Your task to perform on an android device: Open Google Chrome and open the bookmarks view Image 0: 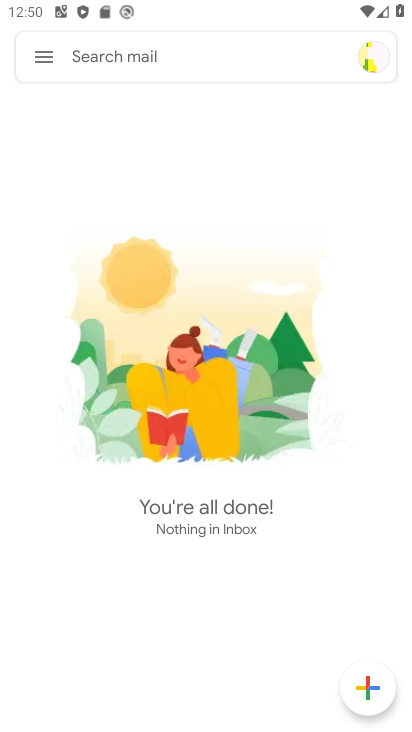
Step 0: press home button
Your task to perform on an android device: Open Google Chrome and open the bookmarks view Image 1: 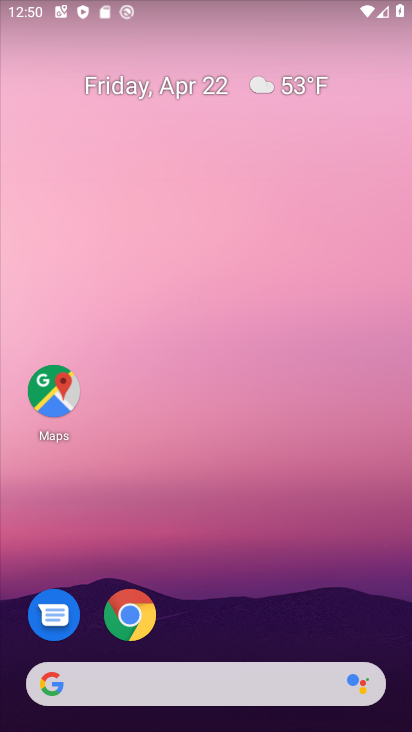
Step 1: click (124, 622)
Your task to perform on an android device: Open Google Chrome and open the bookmarks view Image 2: 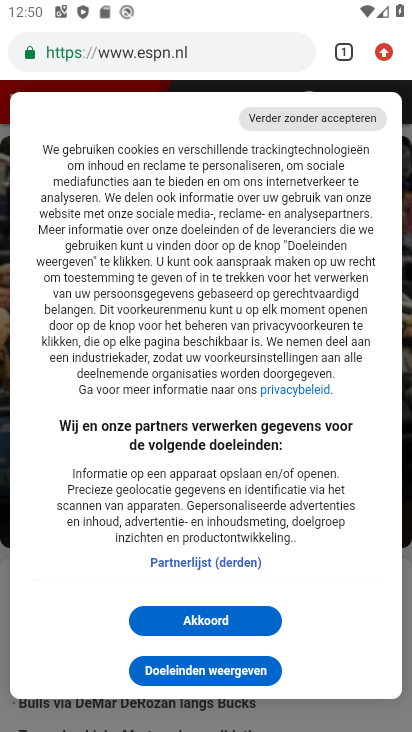
Step 2: click (385, 56)
Your task to perform on an android device: Open Google Chrome and open the bookmarks view Image 3: 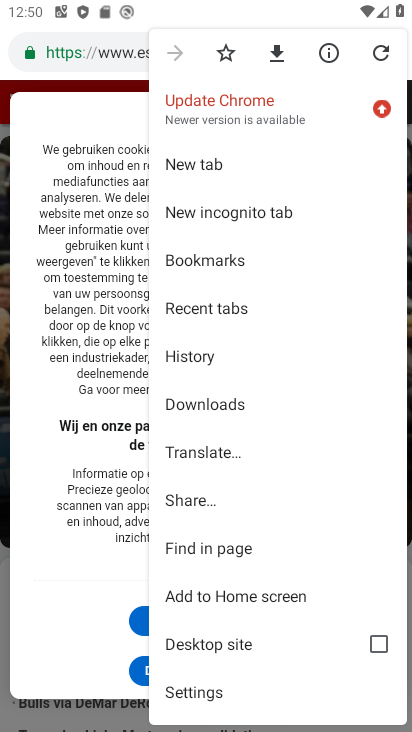
Step 3: click (218, 258)
Your task to perform on an android device: Open Google Chrome and open the bookmarks view Image 4: 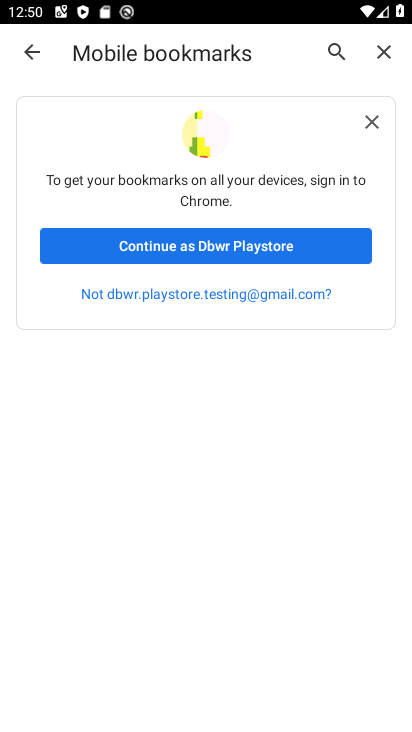
Step 4: click (204, 241)
Your task to perform on an android device: Open Google Chrome and open the bookmarks view Image 5: 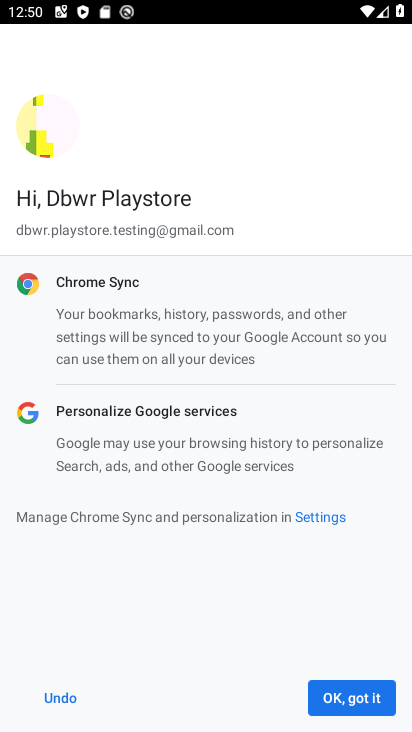
Step 5: click (339, 702)
Your task to perform on an android device: Open Google Chrome and open the bookmarks view Image 6: 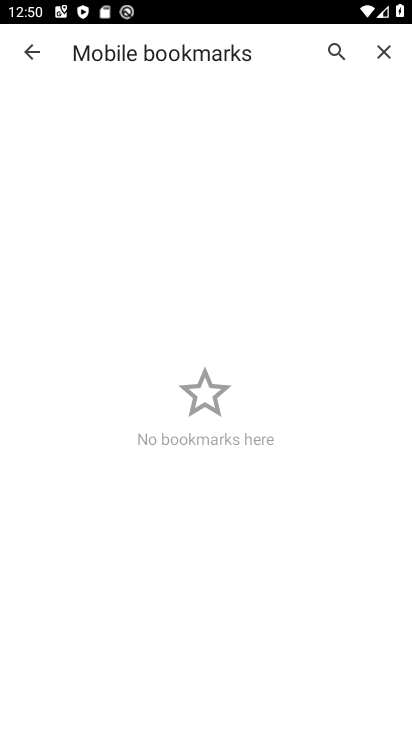
Step 6: task complete